Your task to perform on an android device: Search for sony triple a on ebay, select the first entry, add it to the cart, then select checkout. Image 0: 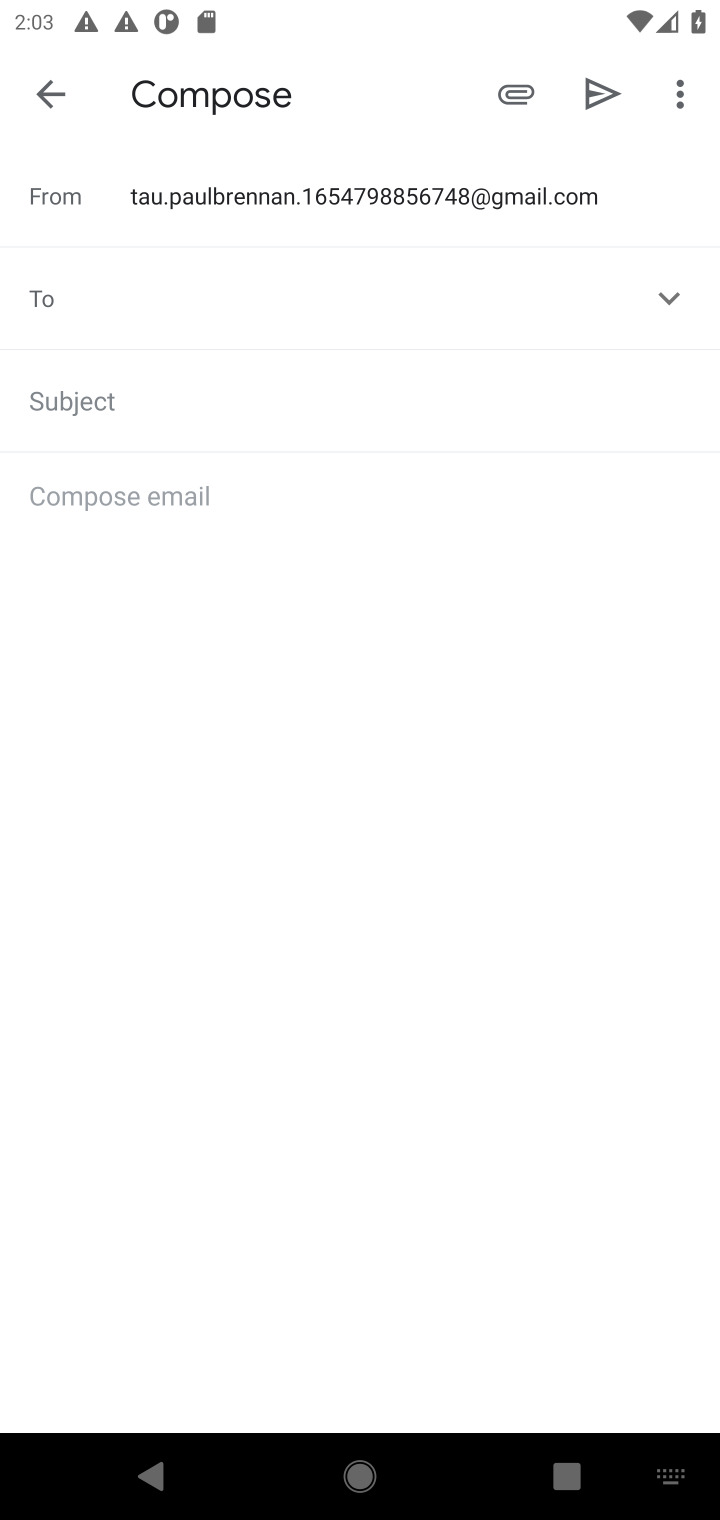
Step 0: press home button
Your task to perform on an android device: Search for sony triple a on ebay, select the first entry, add it to the cart, then select checkout. Image 1: 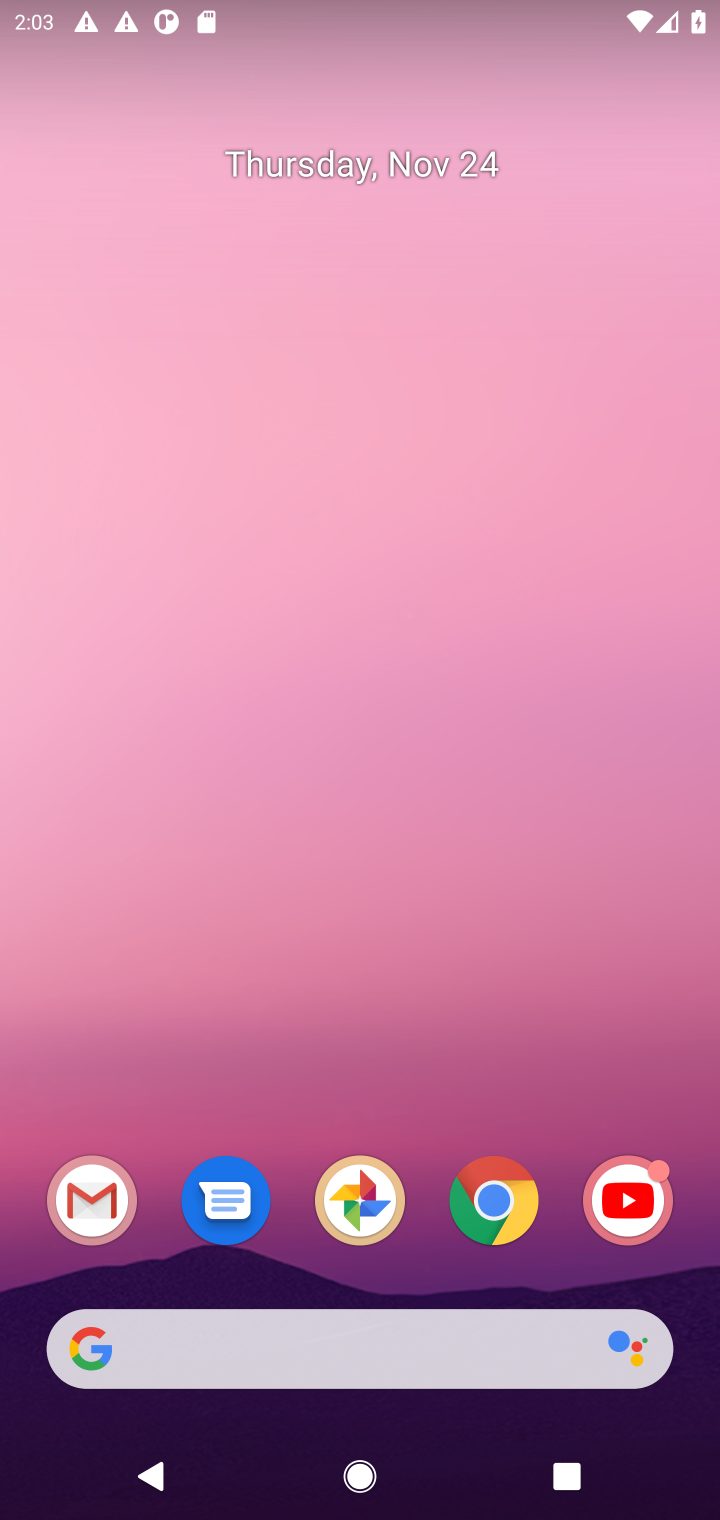
Step 1: click (358, 1375)
Your task to perform on an android device: Search for sony triple a on ebay, select the first entry, add it to the cart, then select checkout. Image 2: 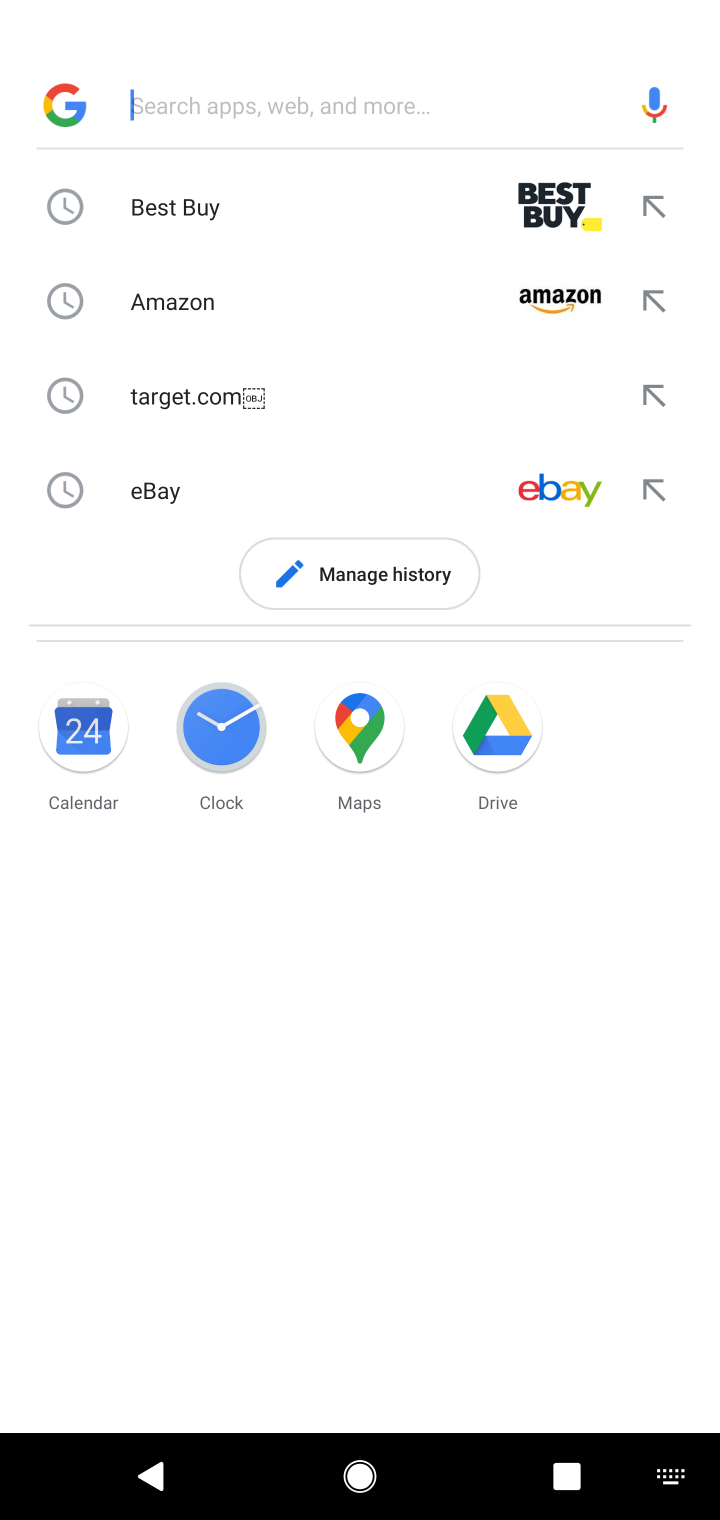
Step 2: type "sony triple "
Your task to perform on an android device: Search for sony triple a on ebay, select the first entry, add it to the cart, then select checkout. Image 3: 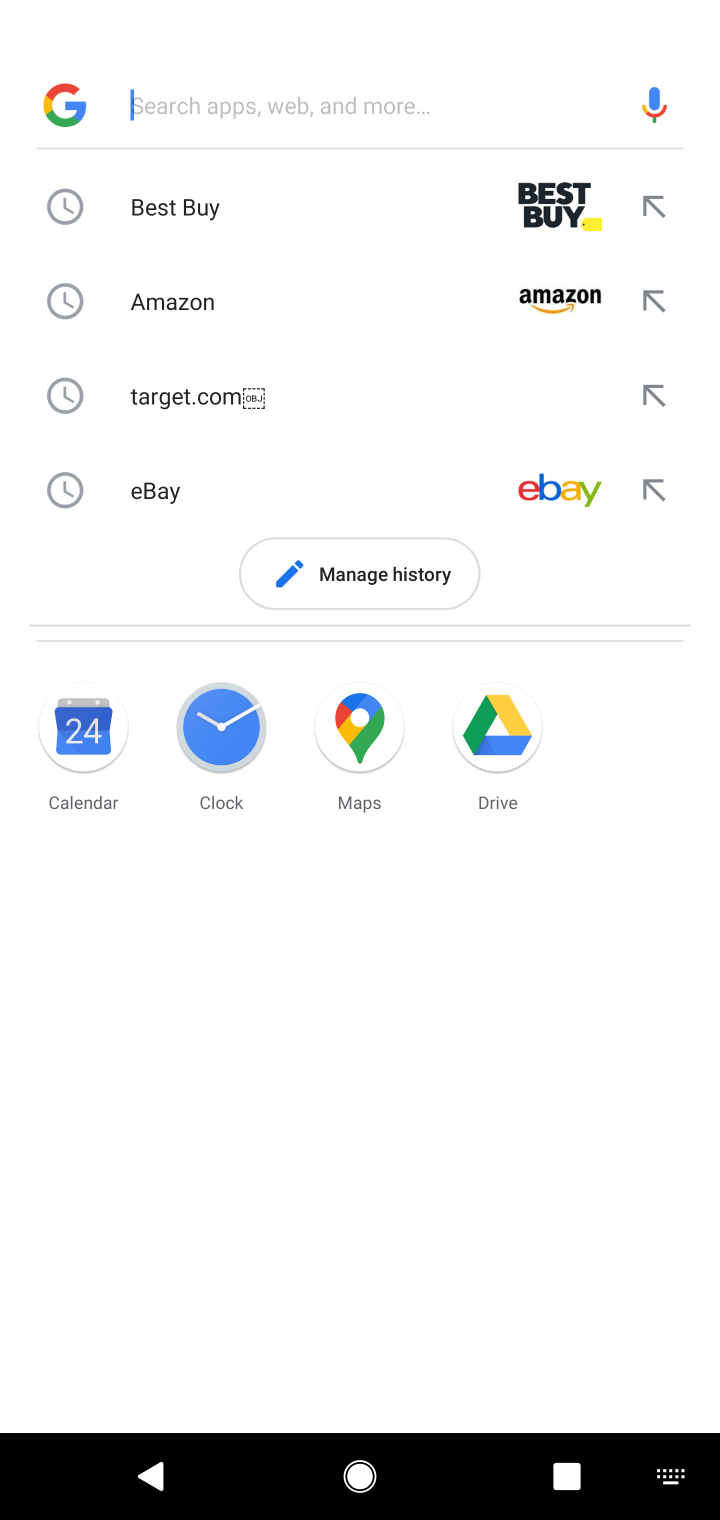
Step 3: click (310, 500)
Your task to perform on an android device: Search for sony triple a on ebay, select the first entry, add it to the cart, then select checkout. Image 4: 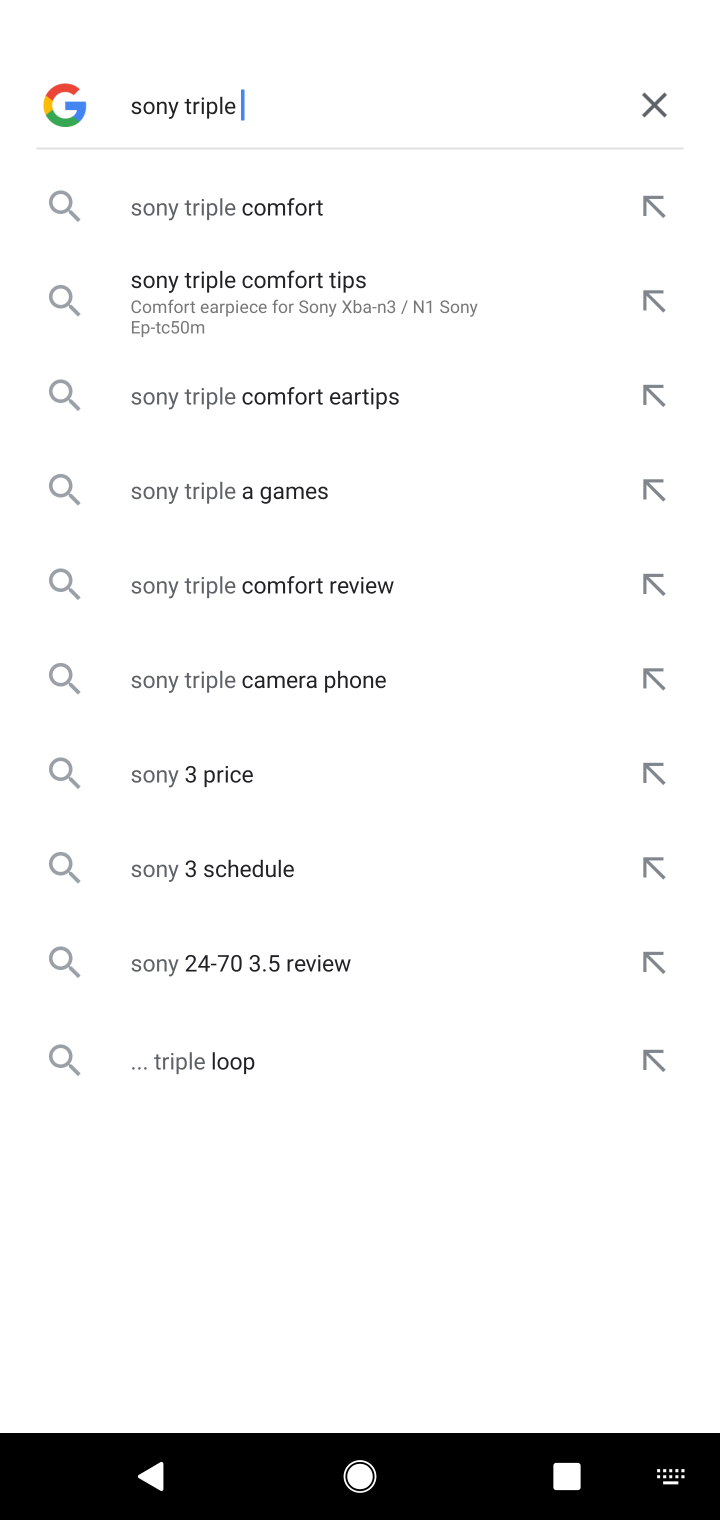
Step 4: click (183, 496)
Your task to perform on an android device: Search for sony triple a on ebay, select the first entry, add it to the cart, then select checkout. Image 5: 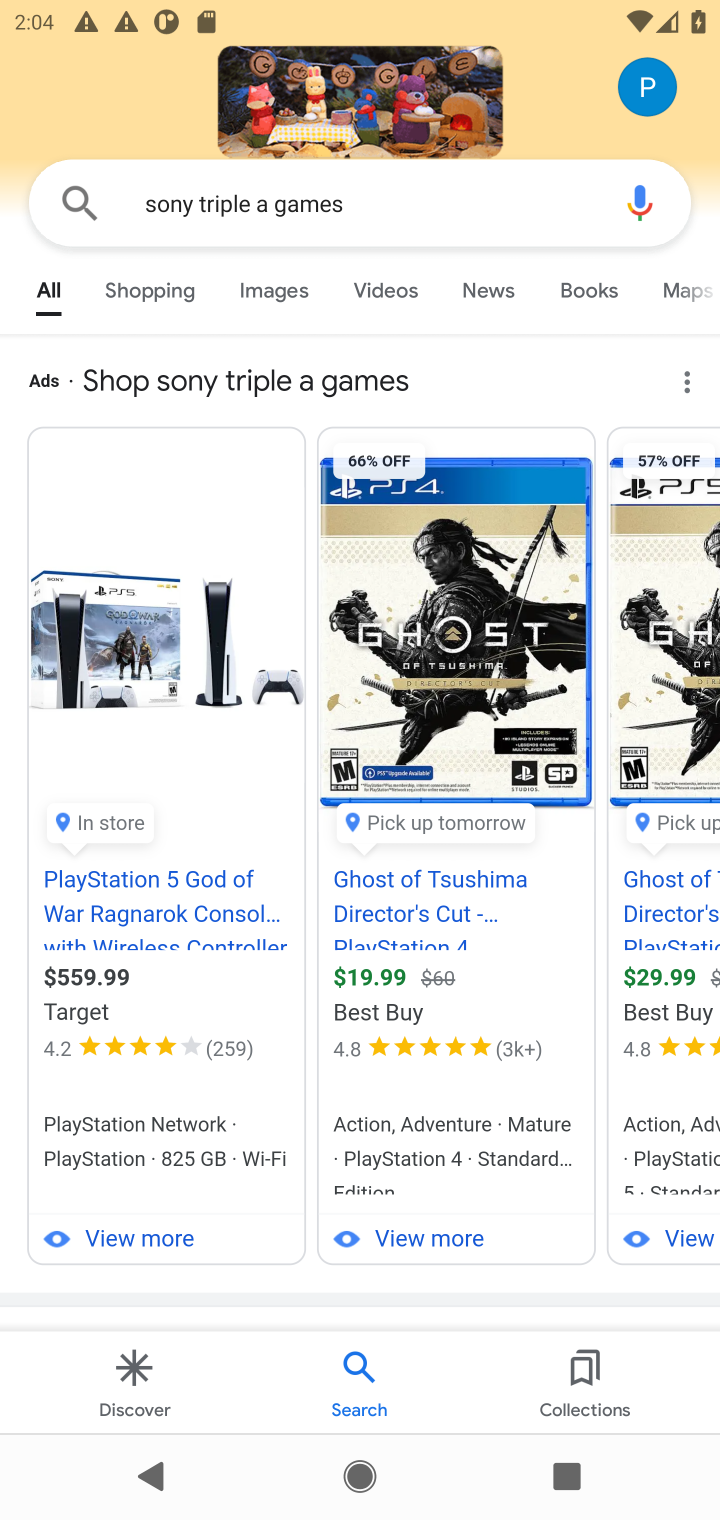
Step 5: press back button
Your task to perform on an android device: Search for sony triple a on ebay, select the first entry, add it to the cart, then select checkout. Image 6: 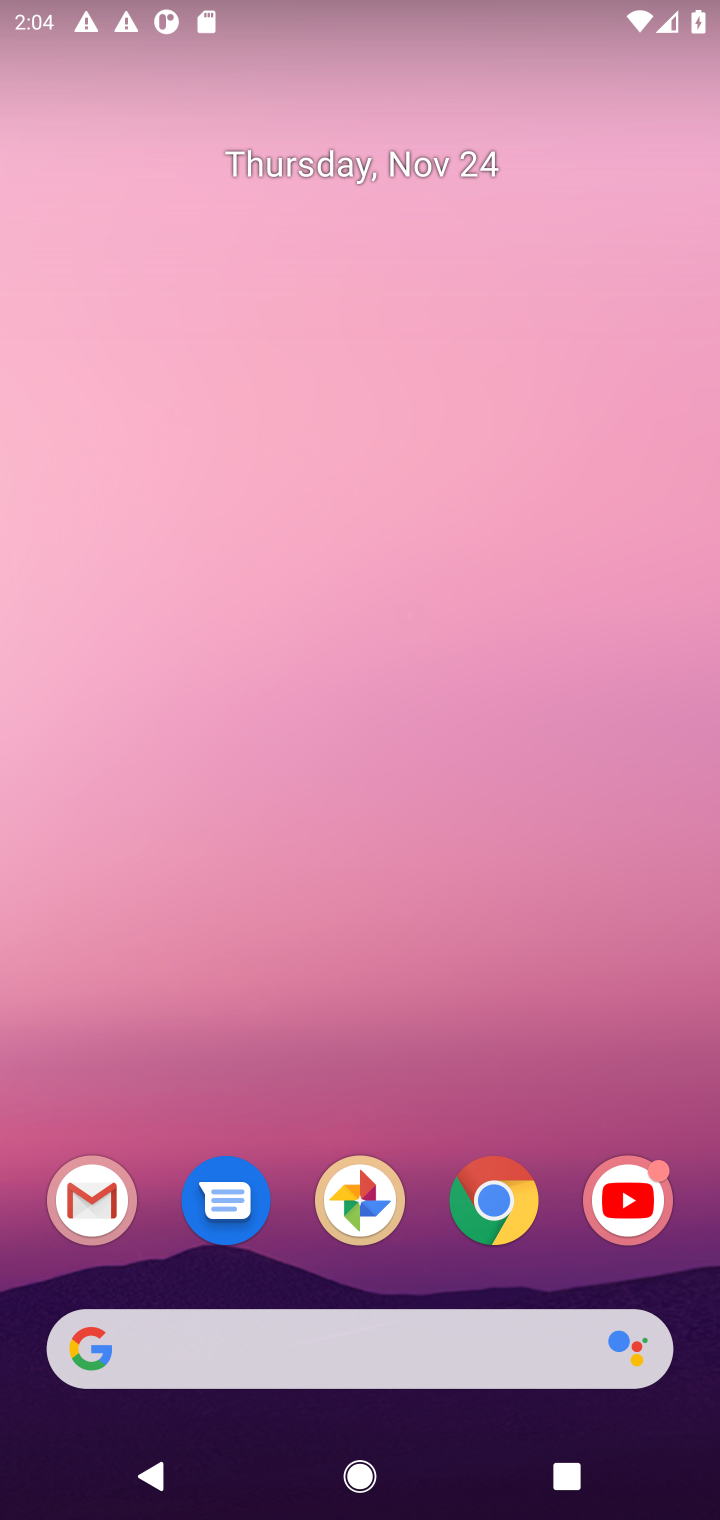
Step 6: click (475, 1330)
Your task to perform on an android device: Search for sony triple a on ebay, select the first entry, add it to the cart, then select checkout. Image 7: 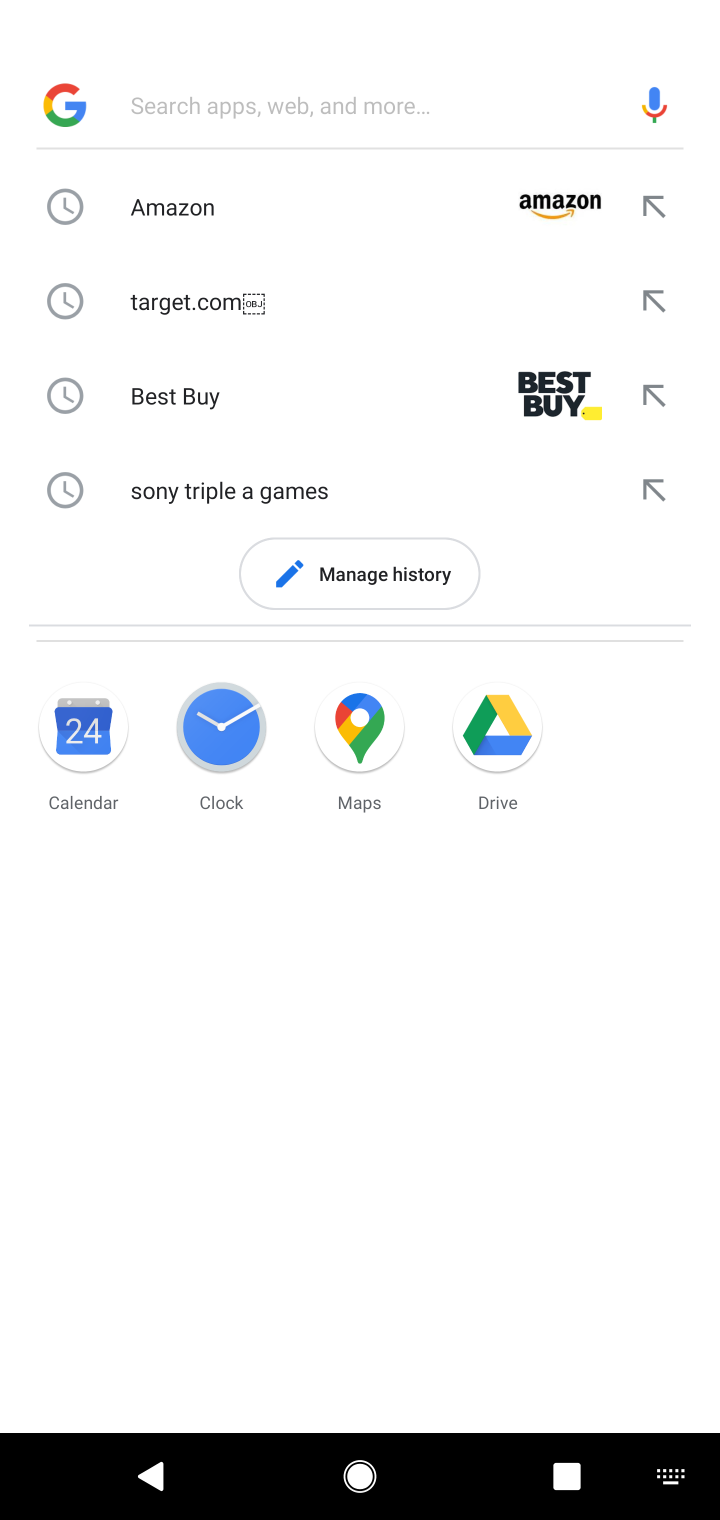
Step 7: click (286, 241)
Your task to perform on an android device: Search for sony triple a on ebay, select the first entry, add it to the cart, then select checkout. Image 8: 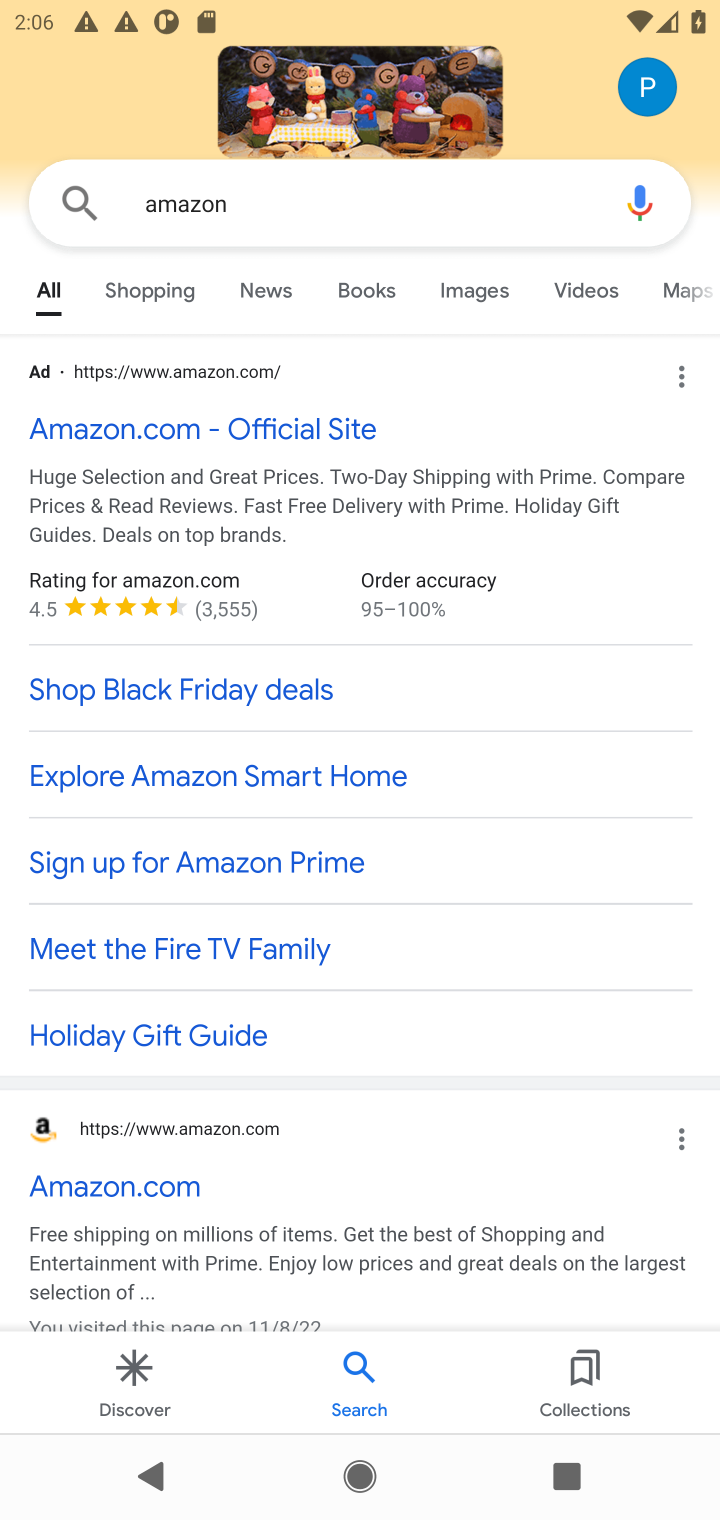
Step 8: click (226, 455)
Your task to perform on an android device: Search for sony triple a on ebay, select the first entry, add it to the cart, then select checkout. Image 9: 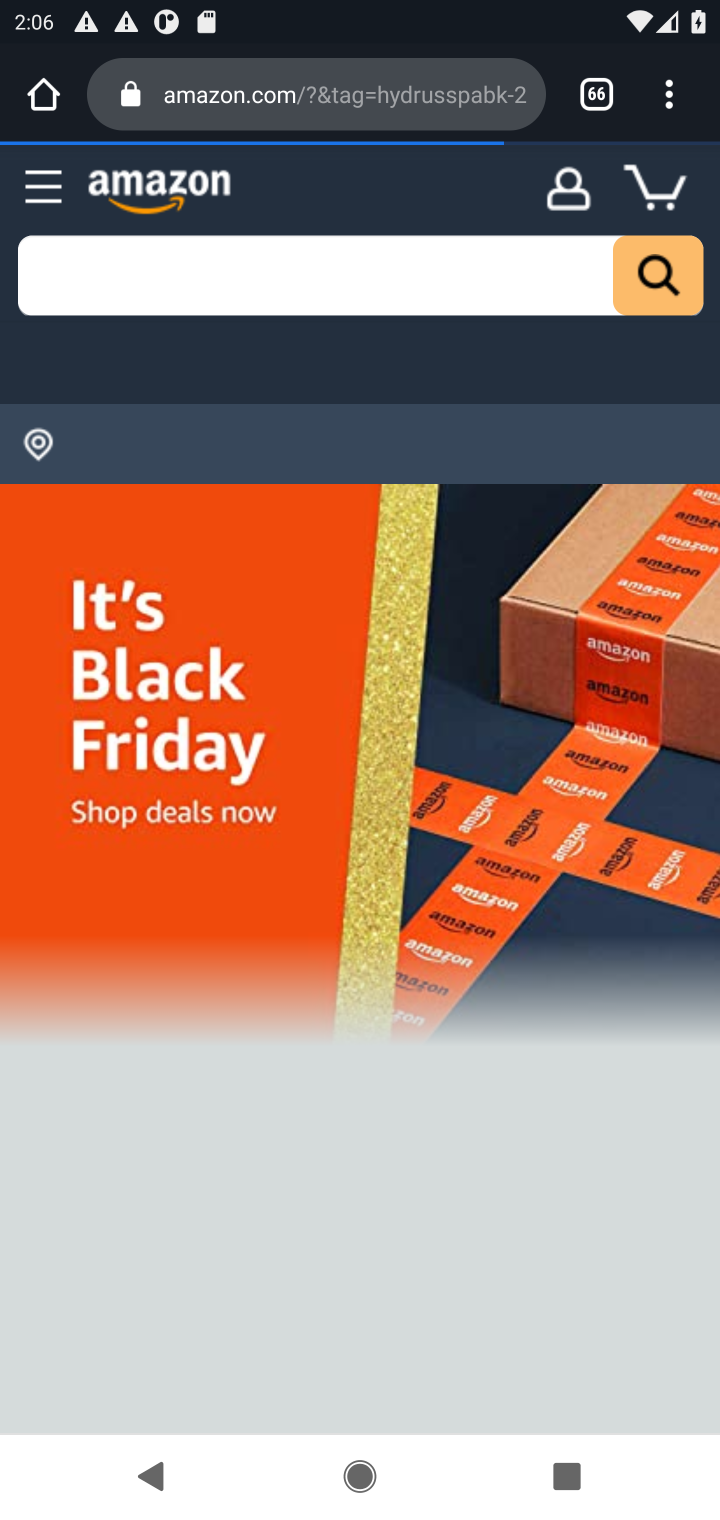
Step 9: task complete